Your task to perform on an android device: delete the emails in spam in the gmail app Image 0: 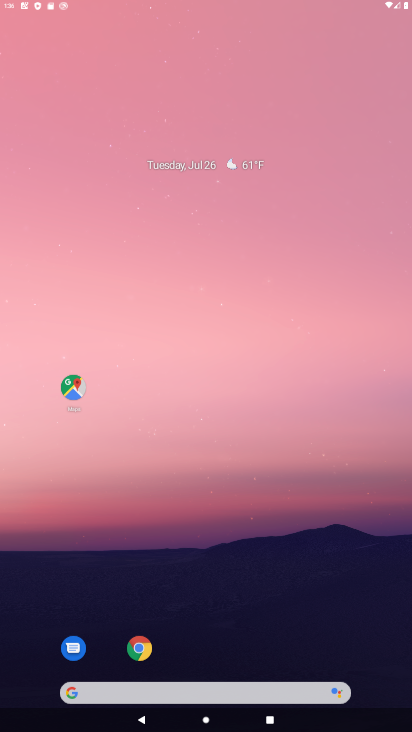
Step 0: drag from (214, 637) to (219, 41)
Your task to perform on an android device: delete the emails in spam in the gmail app Image 1: 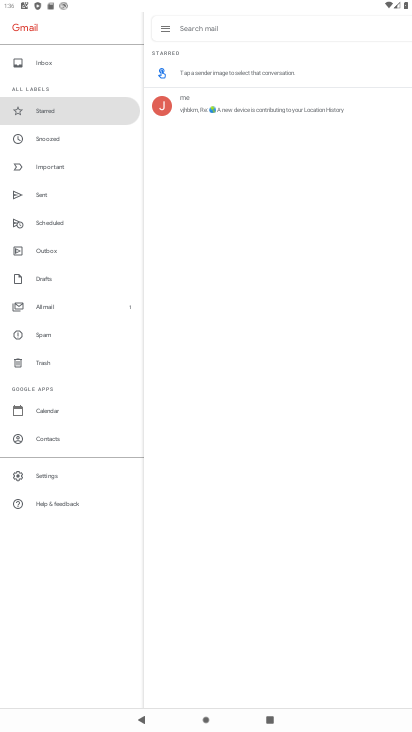
Step 1: press home button
Your task to perform on an android device: delete the emails in spam in the gmail app Image 2: 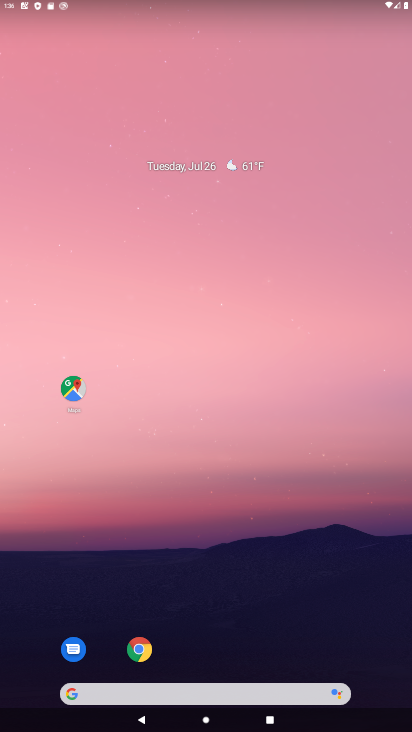
Step 2: drag from (207, 656) to (219, 56)
Your task to perform on an android device: delete the emails in spam in the gmail app Image 3: 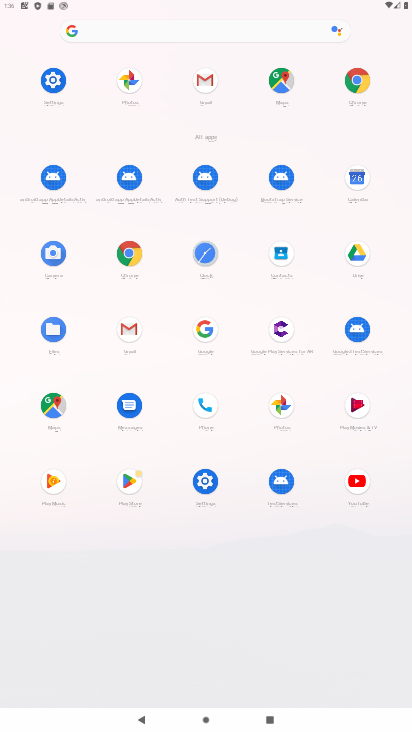
Step 3: click (127, 324)
Your task to perform on an android device: delete the emails in spam in the gmail app Image 4: 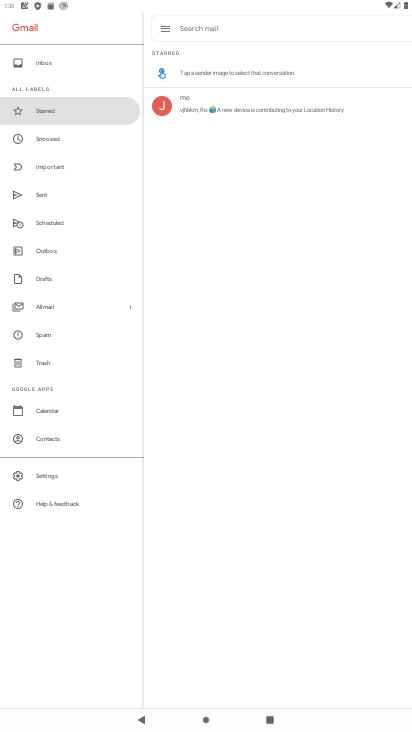
Step 4: click (40, 335)
Your task to perform on an android device: delete the emails in spam in the gmail app Image 5: 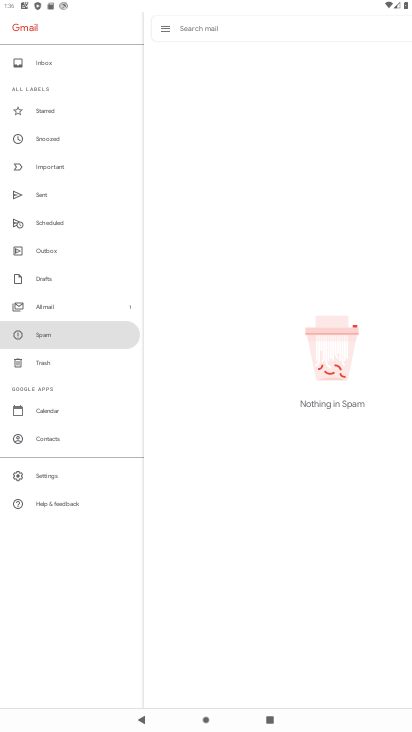
Step 5: task complete